Your task to perform on an android device: turn on notifications settings in the gmail app Image 0: 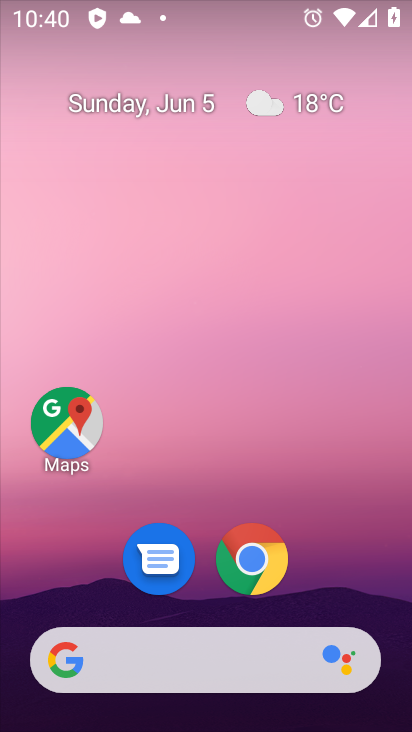
Step 0: drag from (399, 717) to (358, 179)
Your task to perform on an android device: turn on notifications settings in the gmail app Image 1: 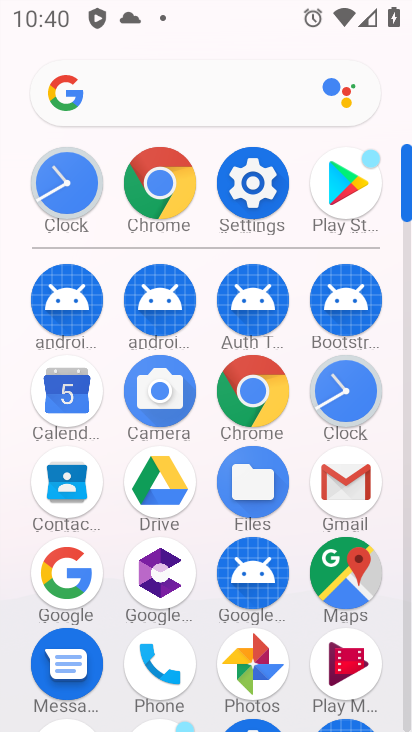
Step 1: click (353, 491)
Your task to perform on an android device: turn on notifications settings in the gmail app Image 2: 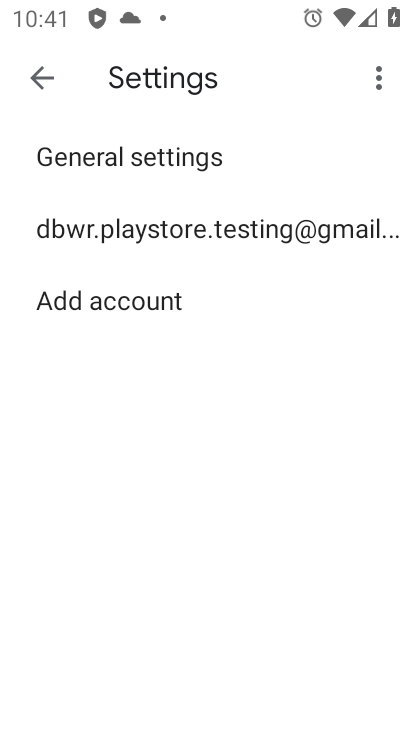
Step 2: click (123, 139)
Your task to perform on an android device: turn on notifications settings in the gmail app Image 3: 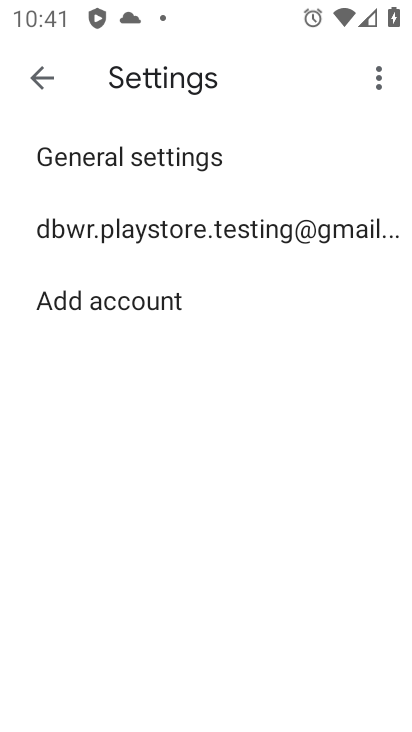
Step 3: click (117, 158)
Your task to perform on an android device: turn on notifications settings in the gmail app Image 4: 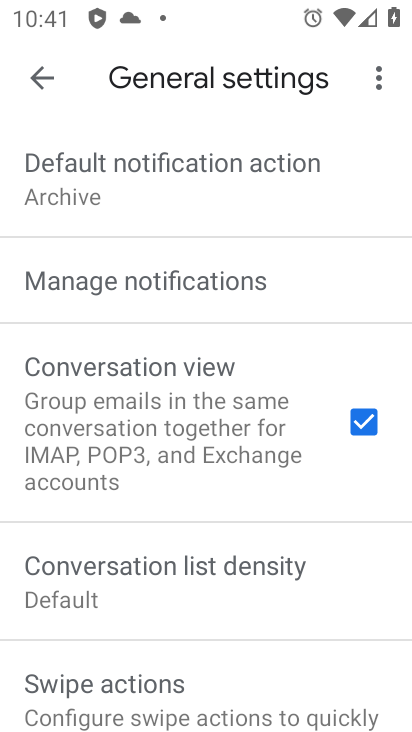
Step 4: click (129, 272)
Your task to perform on an android device: turn on notifications settings in the gmail app Image 5: 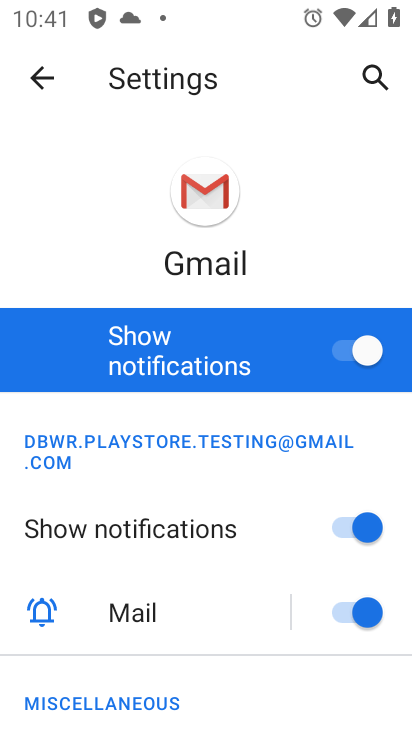
Step 5: task complete